Your task to perform on an android device: turn on translation in the chrome app Image 0: 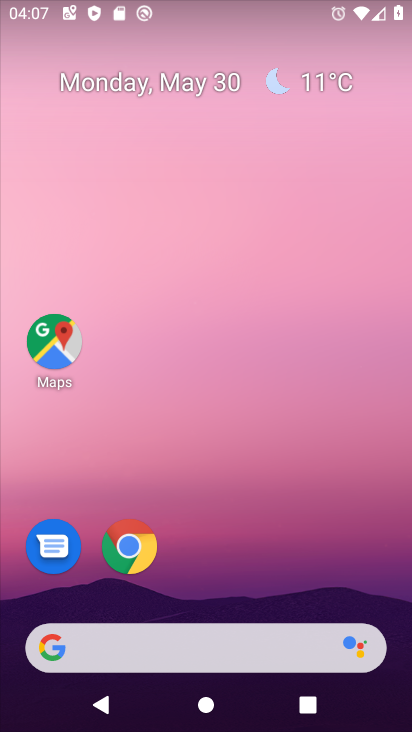
Step 0: press home button
Your task to perform on an android device: turn on translation in the chrome app Image 1: 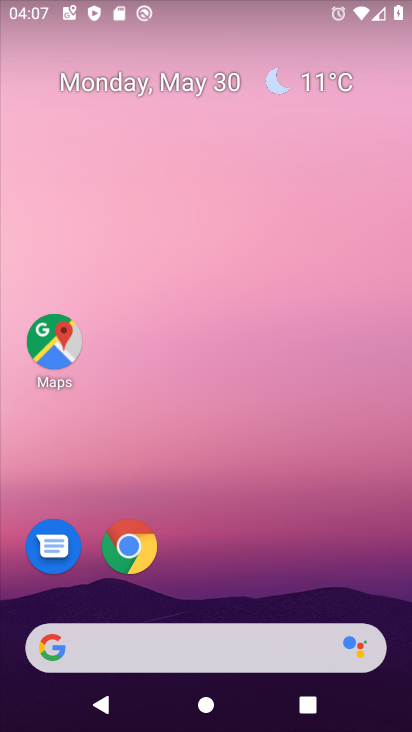
Step 1: click (128, 541)
Your task to perform on an android device: turn on translation in the chrome app Image 2: 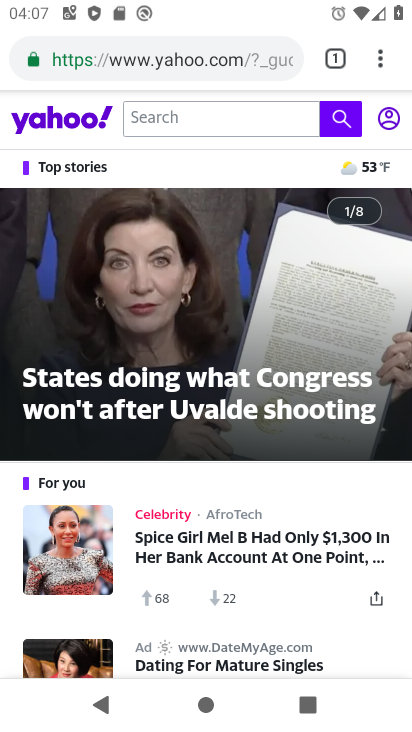
Step 2: click (381, 59)
Your task to perform on an android device: turn on translation in the chrome app Image 3: 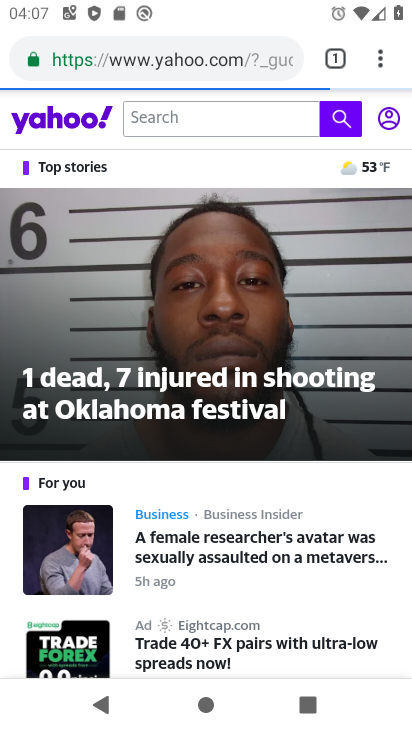
Step 3: click (380, 61)
Your task to perform on an android device: turn on translation in the chrome app Image 4: 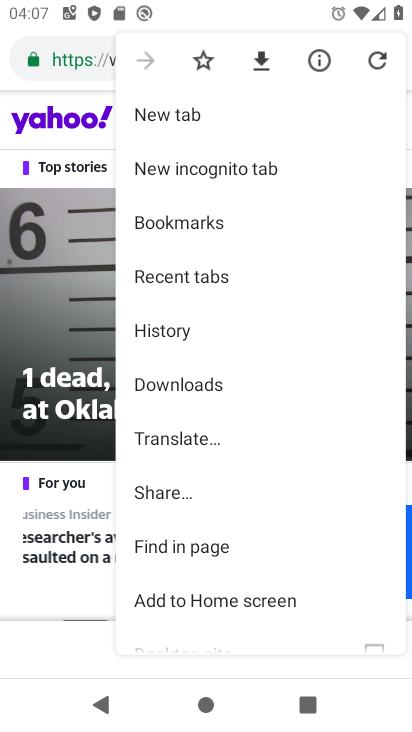
Step 4: drag from (249, 607) to (248, 137)
Your task to perform on an android device: turn on translation in the chrome app Image 5: 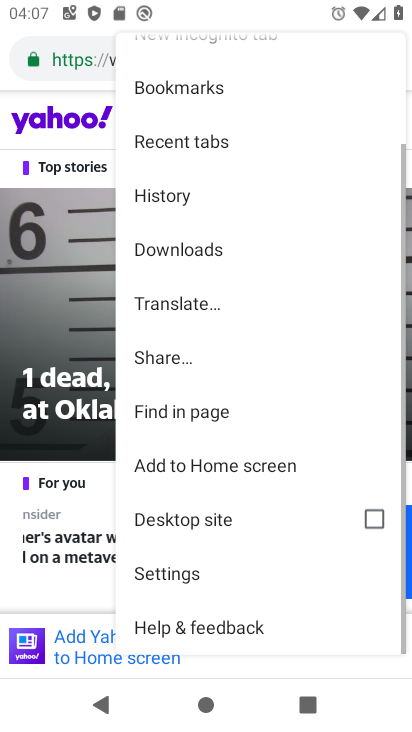
Step 5: click (199, 566)
Your task to perform on an android device: turn on translation in the chrome app Image 6: 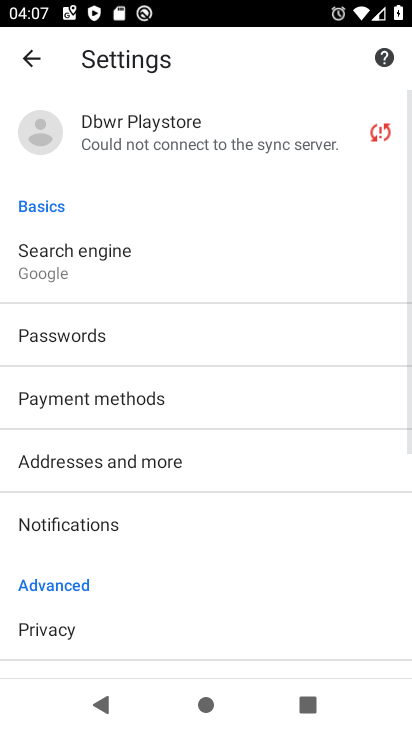
Step 6: drag from (165, 622) to (181, 164)
Your task to perform on an android device: turn on translation in the chrome app Image 7: 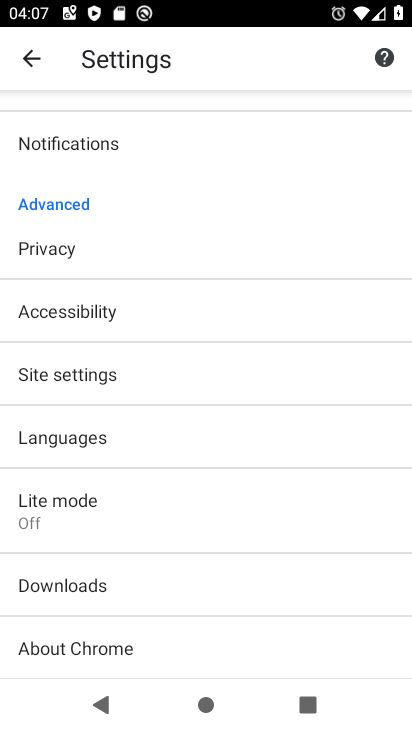
Step 7: click (116, 442)
Your task to perform on an android device: turn on translation in the chrome app Image 8: 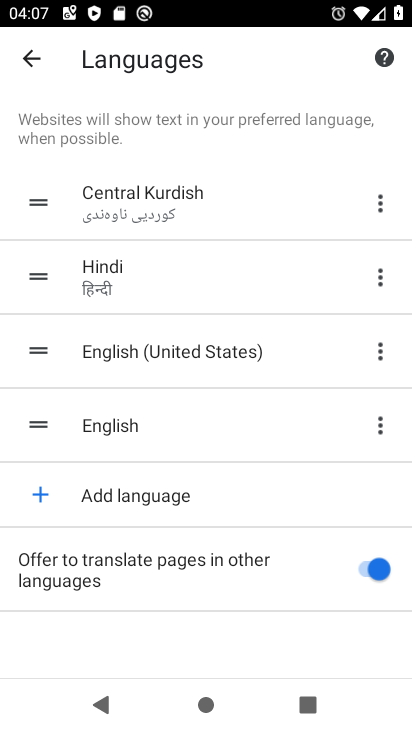
Step 8: task complete